Your task to perform on an android device: What's on my calendar today? Image 0: 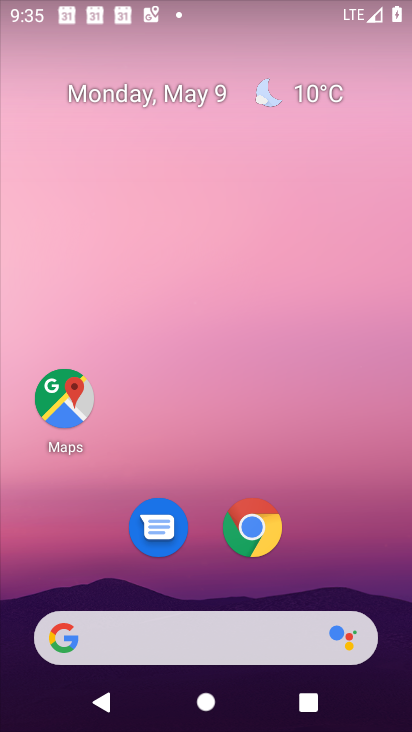
Step 0: drag from (218, 601) to (234, 287)
Your task to perform on an android device: What's on my calendar today? Image 1: 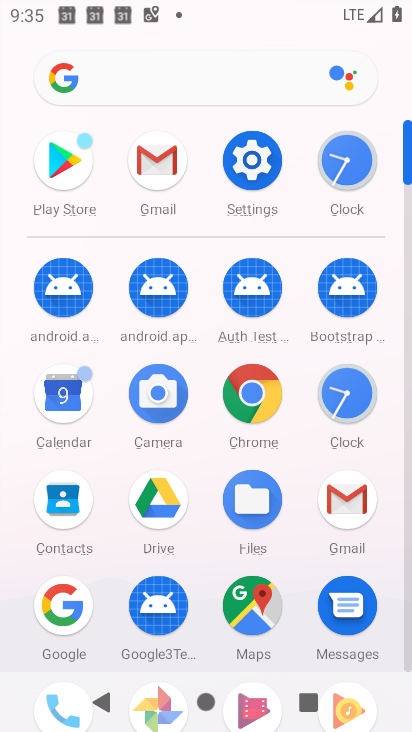
Step 1: click (85, 405)
Your task to perform on an android device: What's on my calendar today? Image 2: 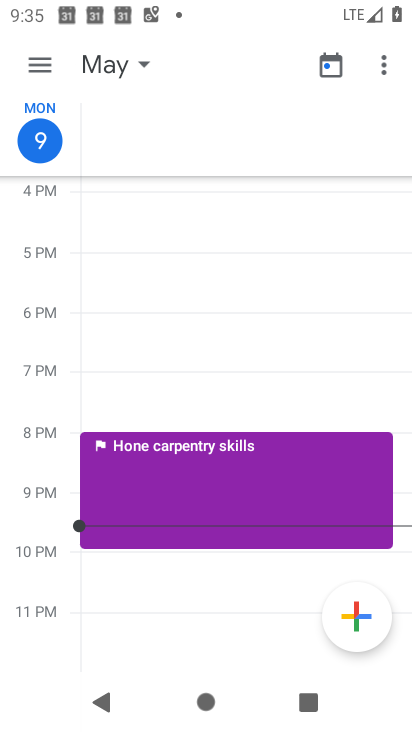
Step 2: click (36, 79)
Your task to perform on an android device: What's on my calendar today? Image 3: 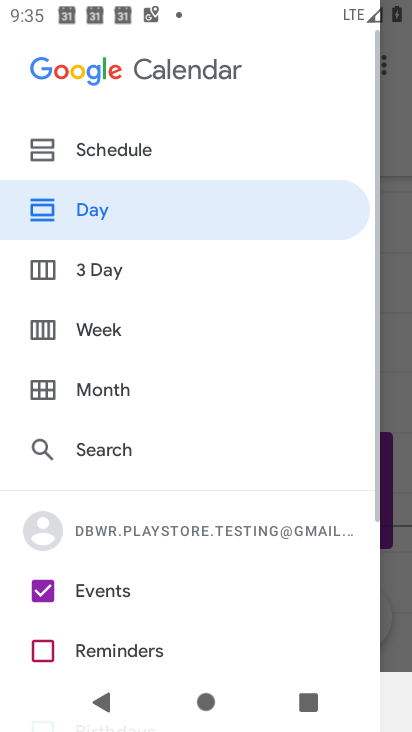
Step 3: drag from (111, 574) to (149, 368)
Your task to perform on an android device: What's on my calendar today? Image 4: 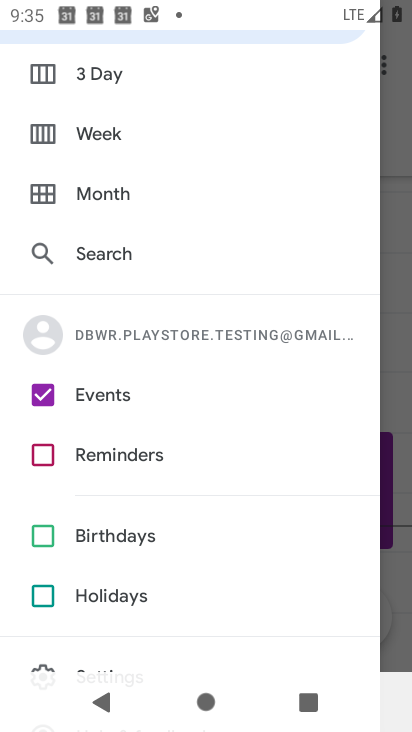
Step 4: click (61, 492)
Your task to perform on an android device: What's on my calendar today? Image 5: 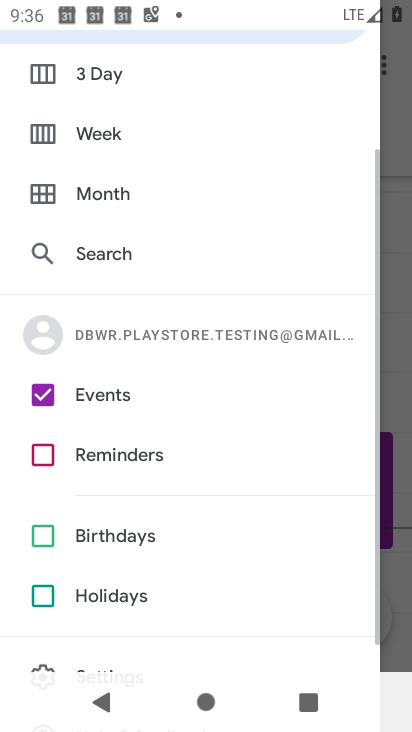
Step 5: click (52, 530)
Your task to perform on an android device: What's on my calendar today? Image 6: 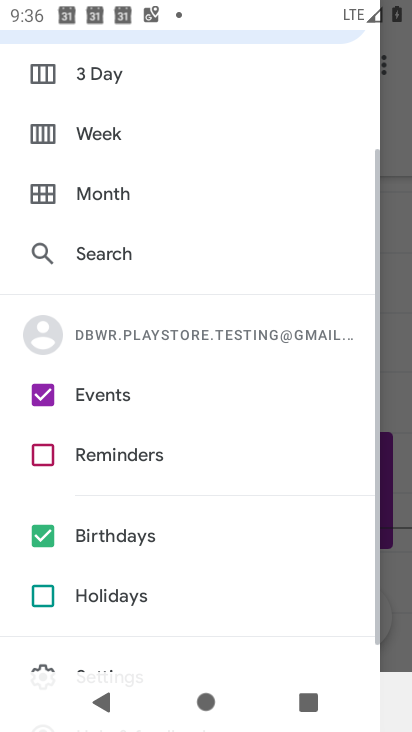
Step 6: click (39, 605)
Your task to perform on an android device: What's on my calendar today? Image 7: 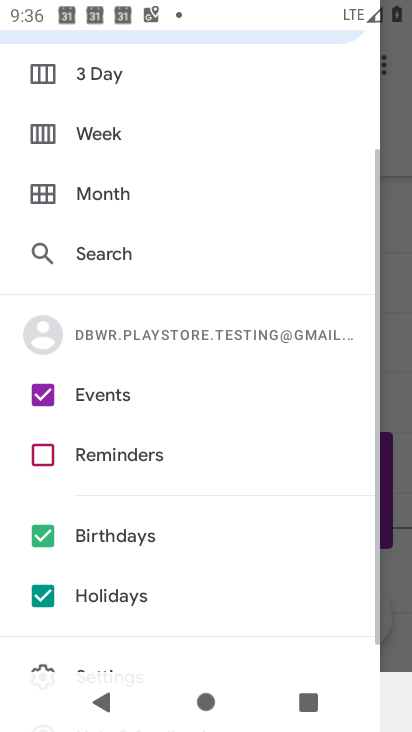
Step 7: click (40, 455)
Your task to perform on an android device: What's on my calendar today? Image 8: 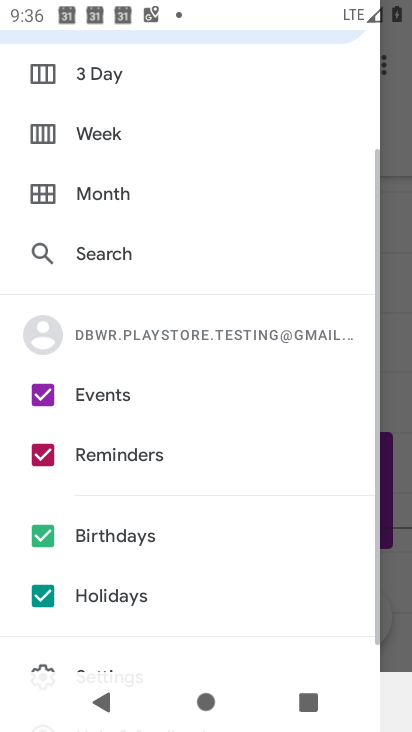
Step 8: drag from (291, 181) to (269, 505)
Your task to perform on an android device: What's on my calendar today? Image 9: 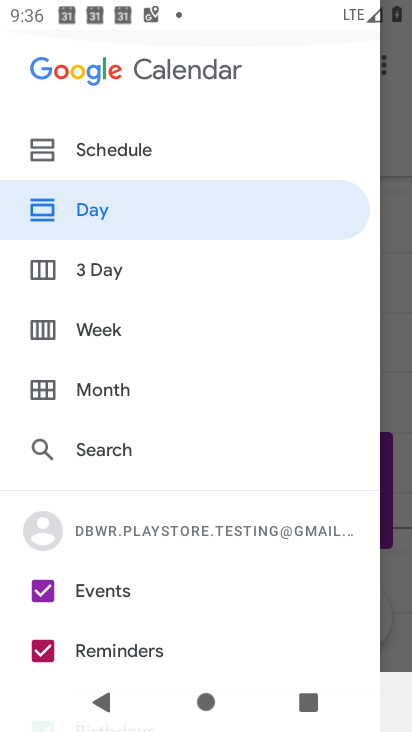
Step 9: click (112, 208)
Your task to perform on an android device: What's on my calendar today? Image 10: 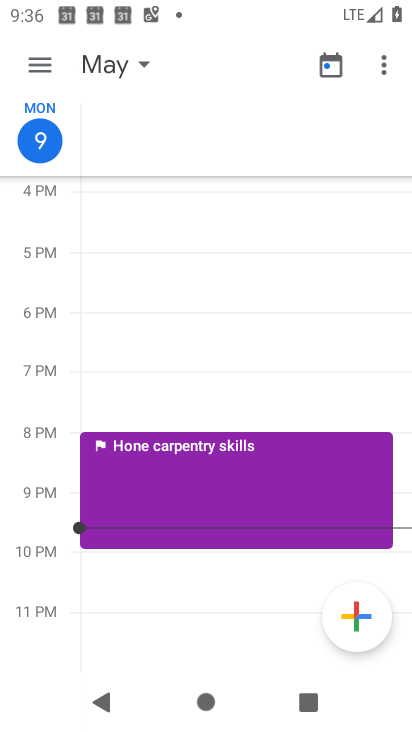
Step 10: task complete